Your task to perform on an android device: turn vacation reply on in the gmail app Image 0: 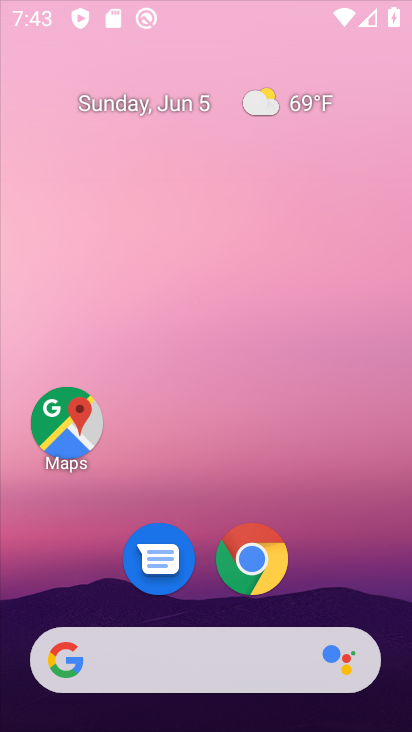
Step 0: drag from (334, 18) to (231, 186)
Your task to perform on an android device: turn vacation reply on in the gmail app Image 1: 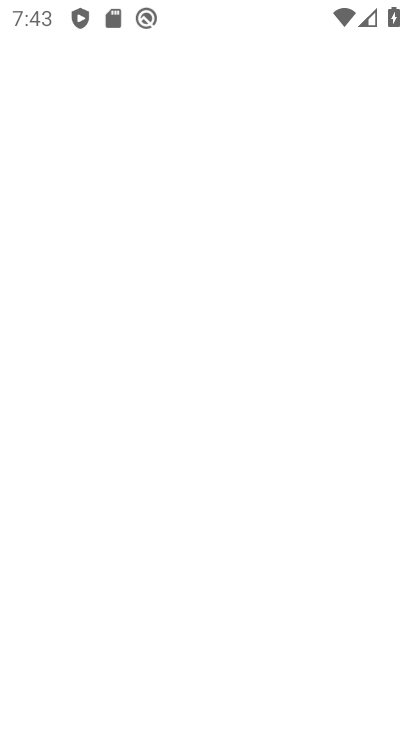
Step 1: press home button
Your task to perform on an android device: turn vacation reply on in the gmail app Image 2: 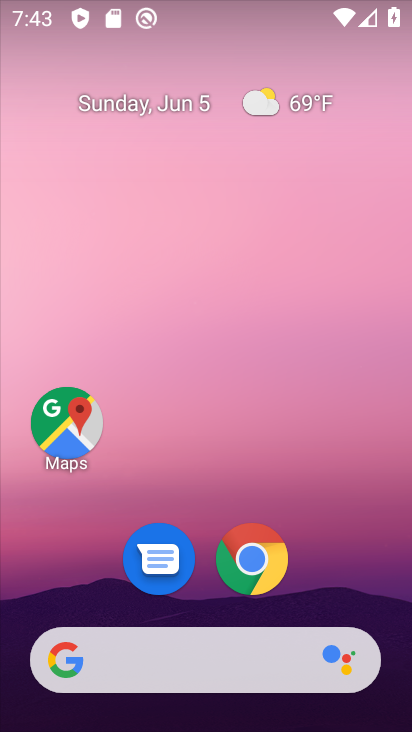
Step 2: drag from (350, 596) to (277, 213)
Your task to perform on an android device: turn vacation reply on in the gmail app Image 3: 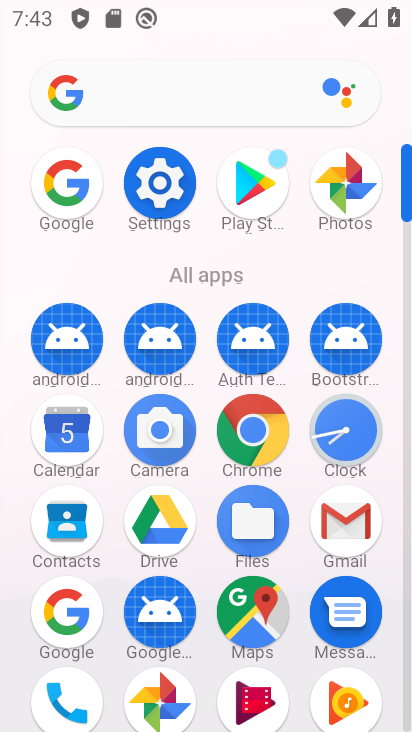
Step 3: click (343, 530)
Your task to perform on an android device: turn vacation reply on in the gmail app Image 4: 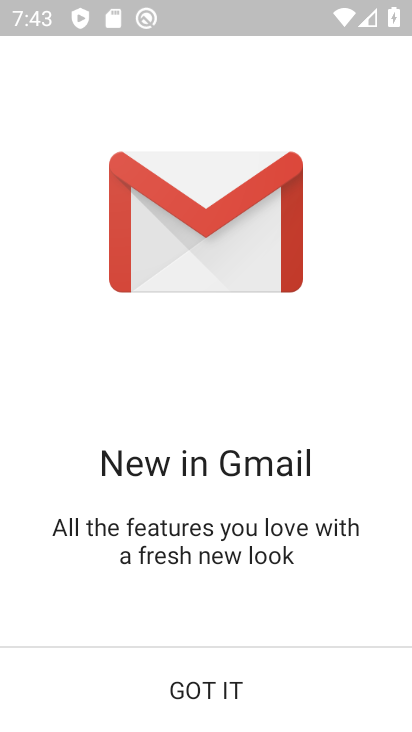
Step 4: click (184, 664)
Your task to perform on an android device: turn vacation reply on in the gmail app Image 5: 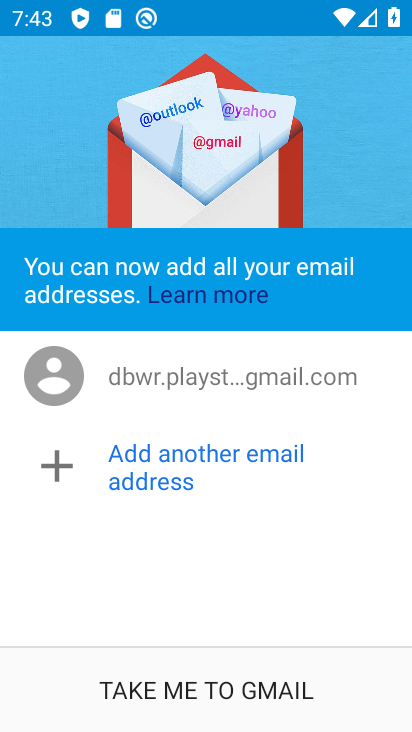
Step 5: click (188, 674)
Your task to perform on an android device: turn vacation reply on in the gmail app Image 6: 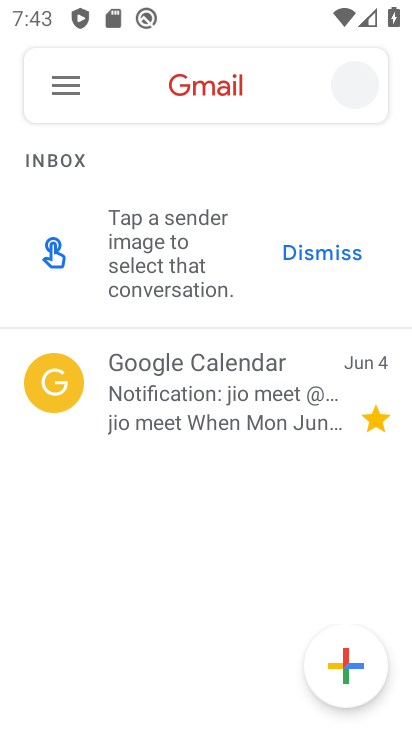
Step 6: click (58, 79)
Your task to perform on an android device: turn vacation reply on in the gmail app Image 7: 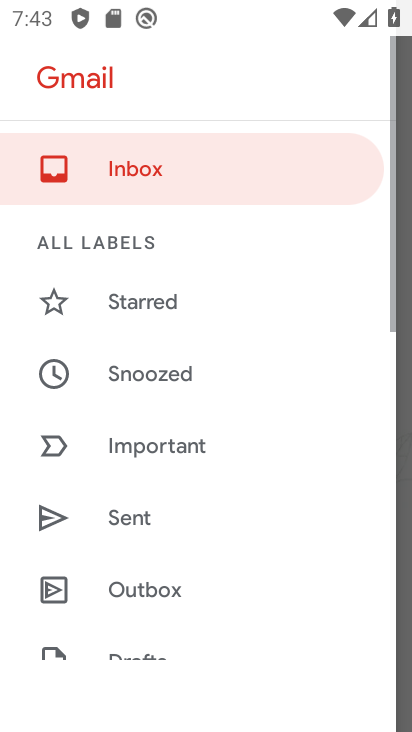
Step 7: drag from (159, 620) to (217, 165)
Your task to perform on an android device: turn vacation reply on in the gmail app Image 8: 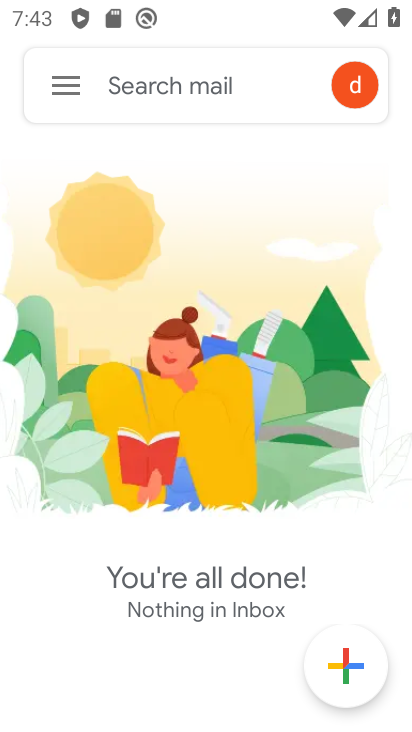
Step 8: click (72, 88)
Your task to perform on an android device: turn vacation reply on in the gmail app Image 9: 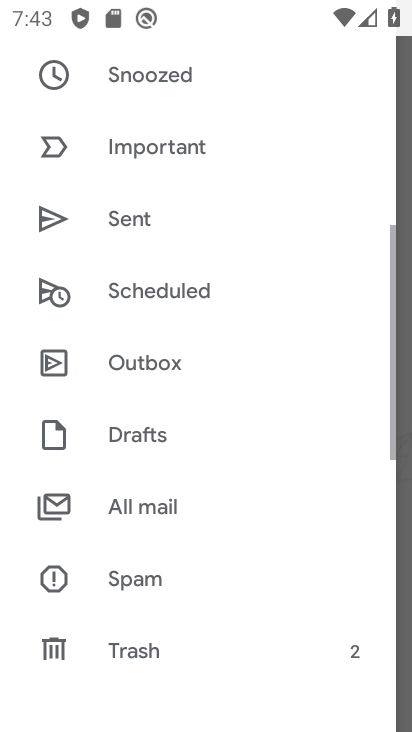
Step 9: drag from (170, 642) to (252, 269)
Your task to perform on an android device: turn vacation reply on in the gmail app Image 10: 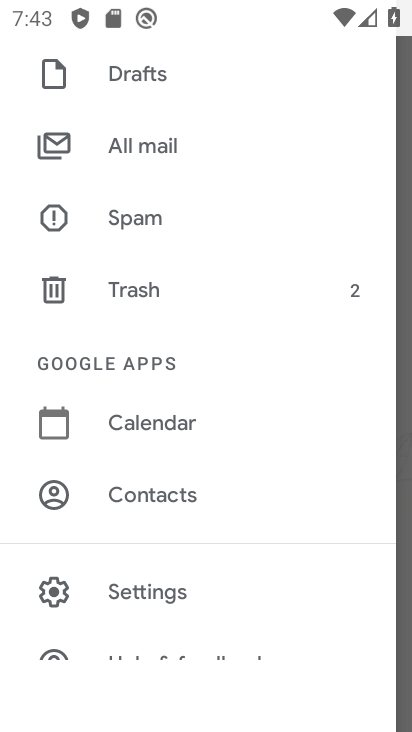
Step 10: click (144, 586)
Your task to perform on an android device: turn vacation reply on in the gmail app Image 11: 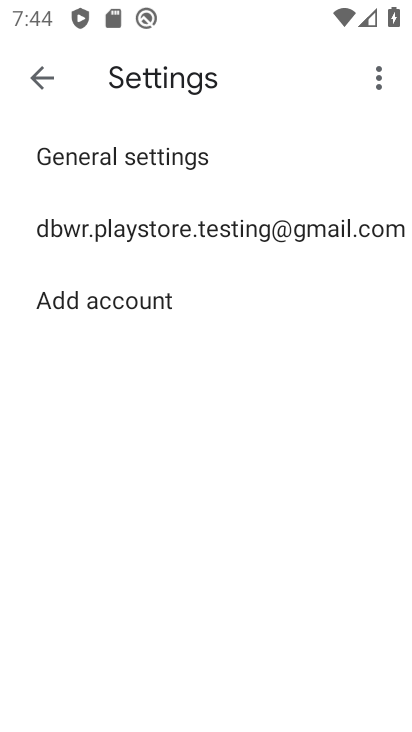
Step 11: click (233, 230)
Your task to perform on an android device: turn vacation reply on in the gmail app Image 12: 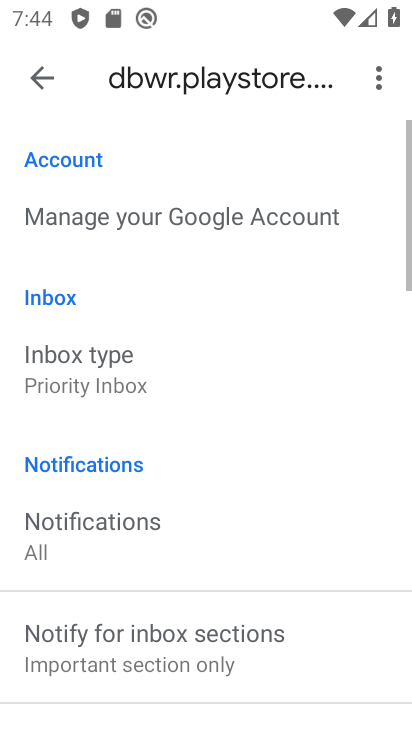
Step 12: drag from (336, 565) to (343, 179)
Your task to perform on an android device: turn vacation reply on in the gmail app Image 13: 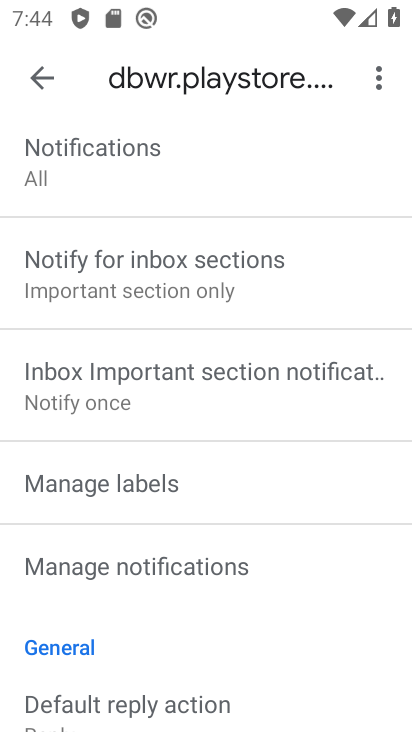
Step 13: drag from (300, 572) to (301, 192)
Your task to perform on an android device: turn vacation reply on in the gmail app Image 14: 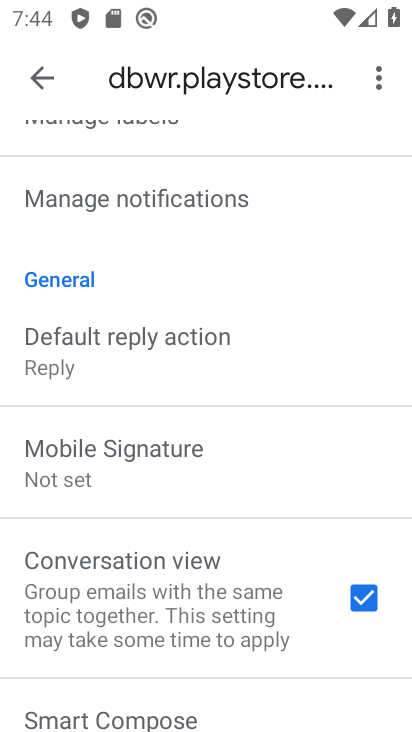
Step 14: drag from (195, 550) to (221, 296)
Your task to perform on an android device: turn vacation reply on in the gmail app Image 15: 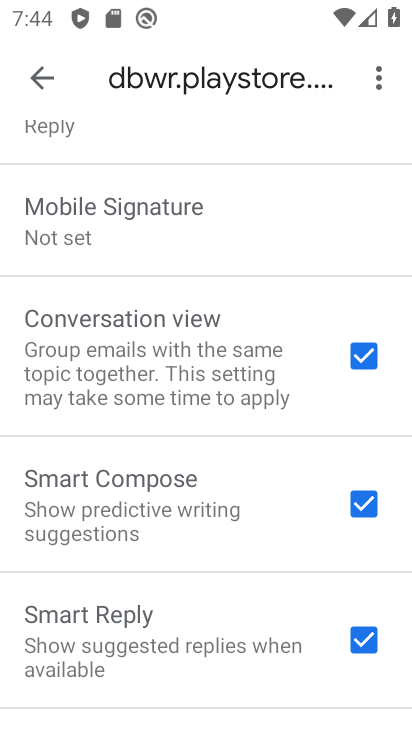
Step 15: drag from (146, 607) to (215, 363)
Your task to perform on an android device: turn vacation reply on in the gmail app Image 16: 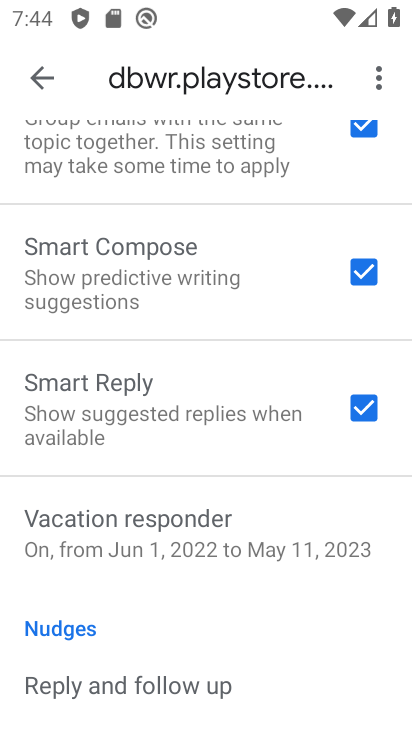
Step 16: click (200, 530)
Your task to perform on an android device: turn vacation reply on in the gmail app Image 17: 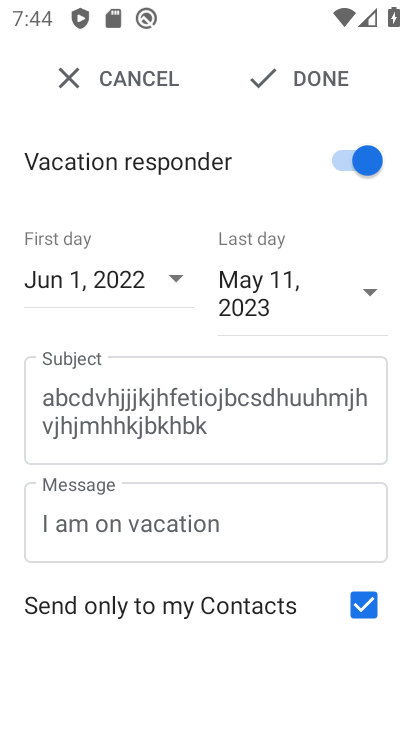
Step 17: task complete